Your task to perform on an android device: open chrome and create a bookmark for the current page Image 0: 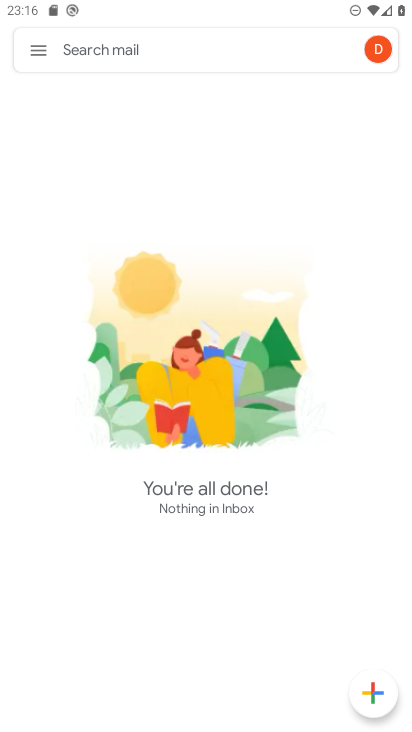
Step 0: press home button
Your task to perform on an android device: open chrome and create a bookmark for the current page Image 1: 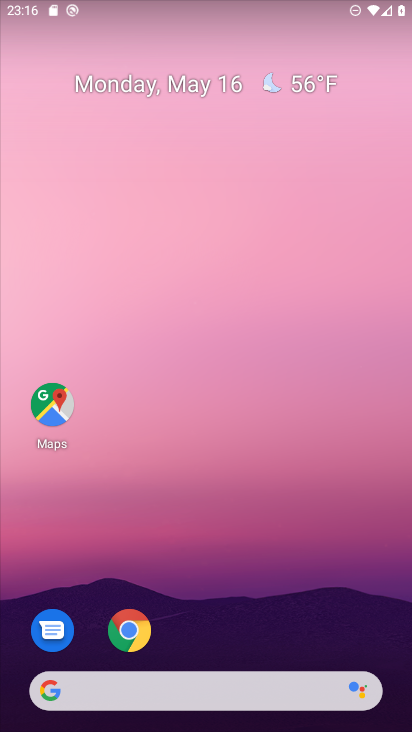
Step 1: click (130, 627)
Your task to perform on an android device: open chrome and create a bookmark for the current page Image 2: 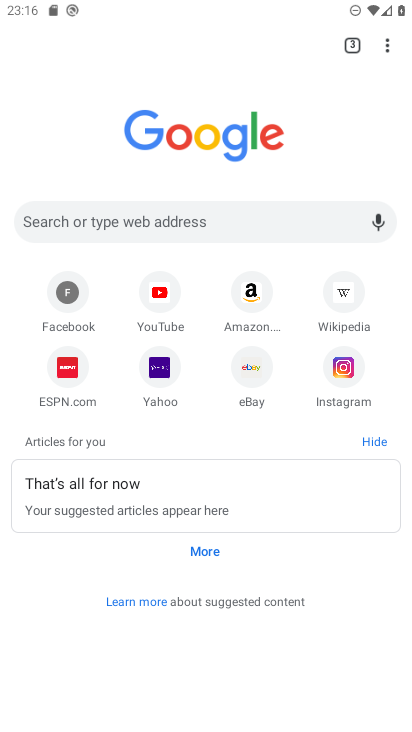
Step 2: click (390, 47)
Your task to perform on an android device: open chrome and create a bookmark for the current page Image 3: 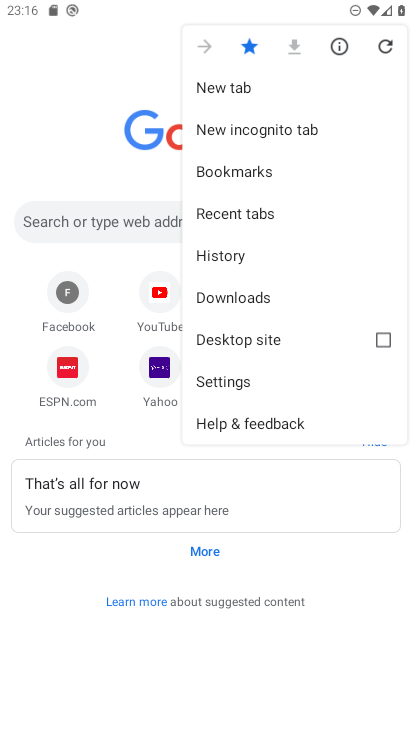
Step 3: task complete